Your task to perform on an android device: View the shopping cart on target. Search for "razer blade" on target, select the first entry, and add it to the cart. Image 0: 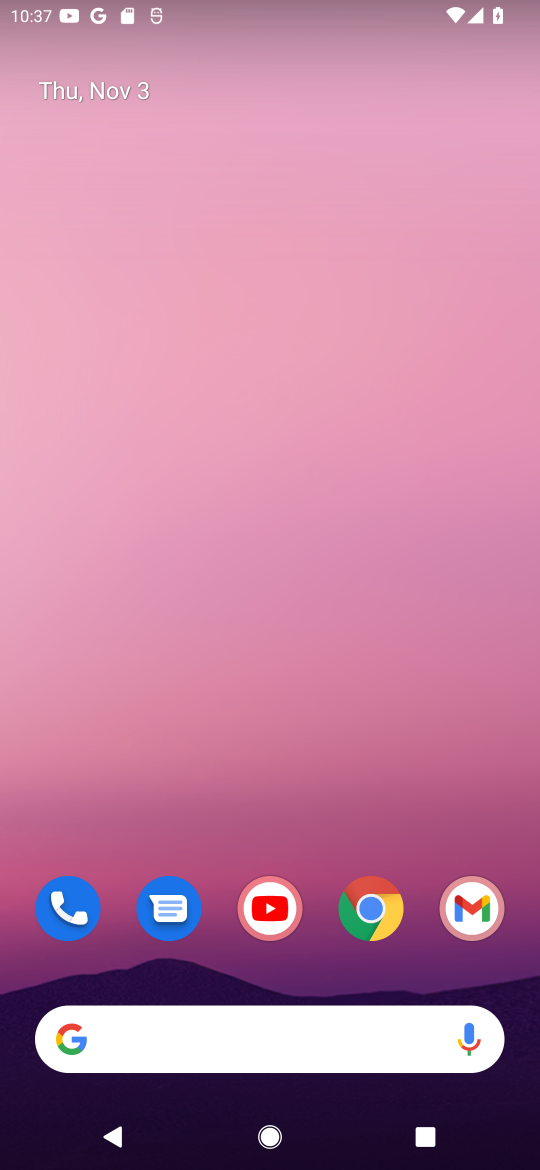
Step 0: click (353, 901)
Your task to perform on an android device: View the shopping cart on target. Search for "razer blade" on target, select the first entry, and add it to the cart. Image 1: 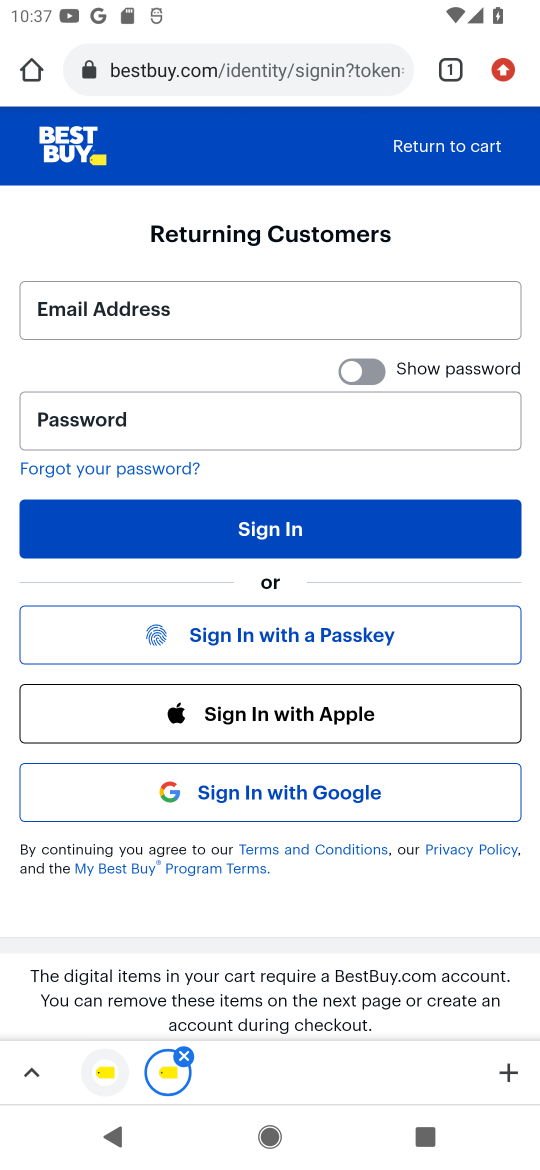
Step 1: click (213, 52)
Your task to perform on an android device: View the shopping cart on target. Search for "razer blade" on target, select the first entry, and add it to the cart. Image 2: 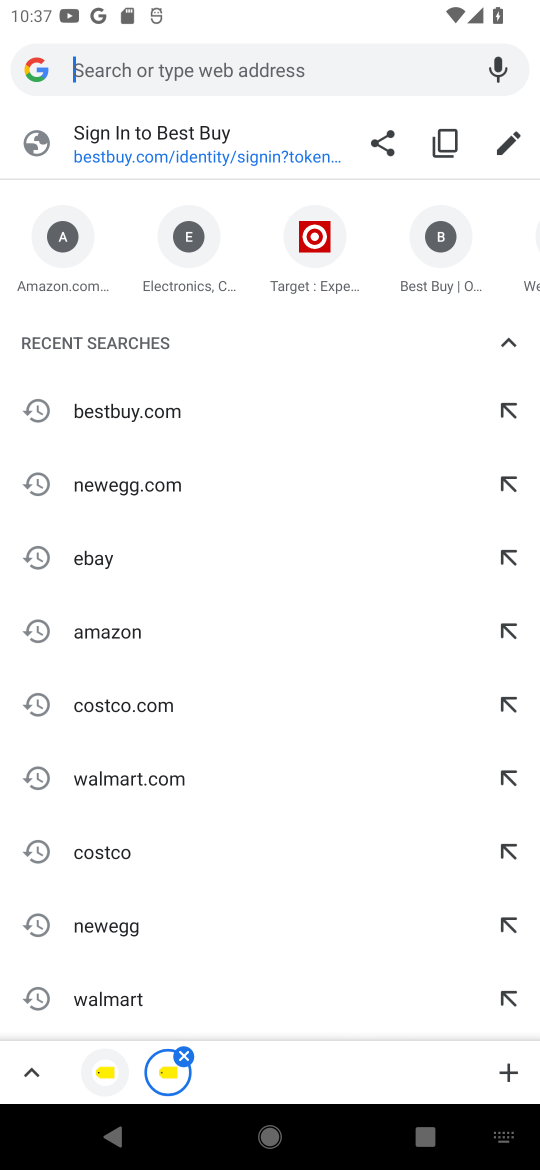
Step 2: click (305, 255)
Your task to perform on an android device: View the shopping cart on target. Search for "razer blade" on target, select the first entry, and add it to the cart. Image 3: 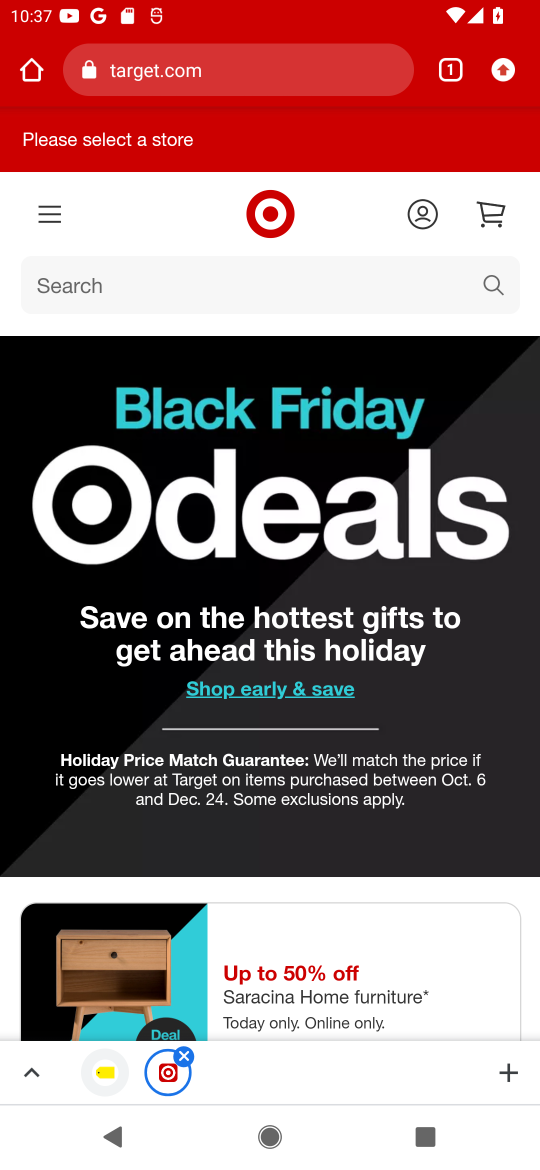
Step 3: click (484, 204)
Your task to perform on an android device: View the shopping cart on target. Search for "razer blade" on target, select the first entry, and add it to the cart. Image 4: 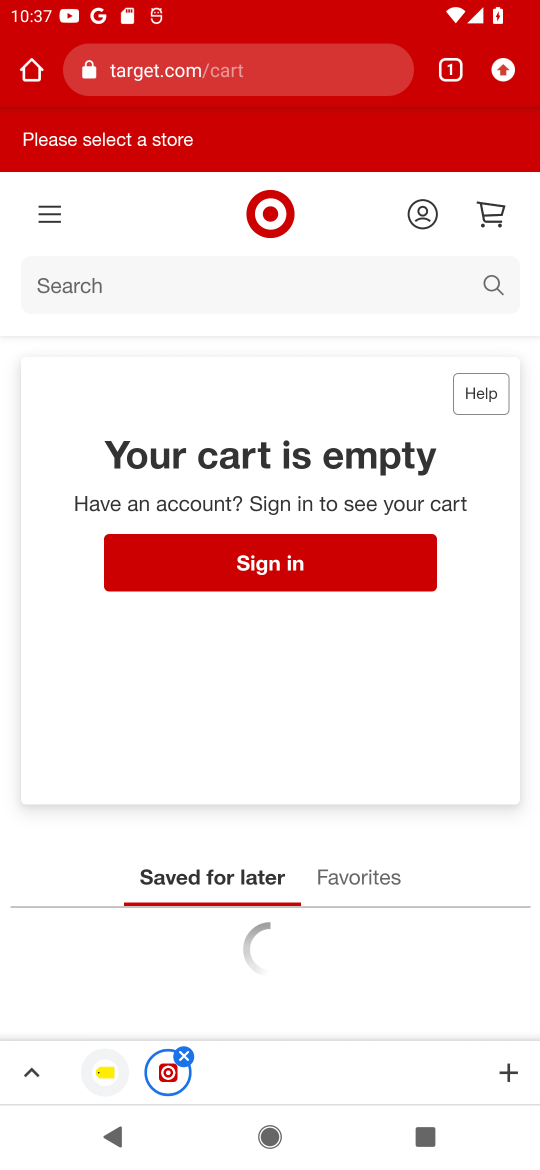
Step 4: click (481, 273)
Your task to perform on an android device: View the shopping cart on target. Search for "razer blade" on target, select the first entry, and add it to the cart. Image 5: 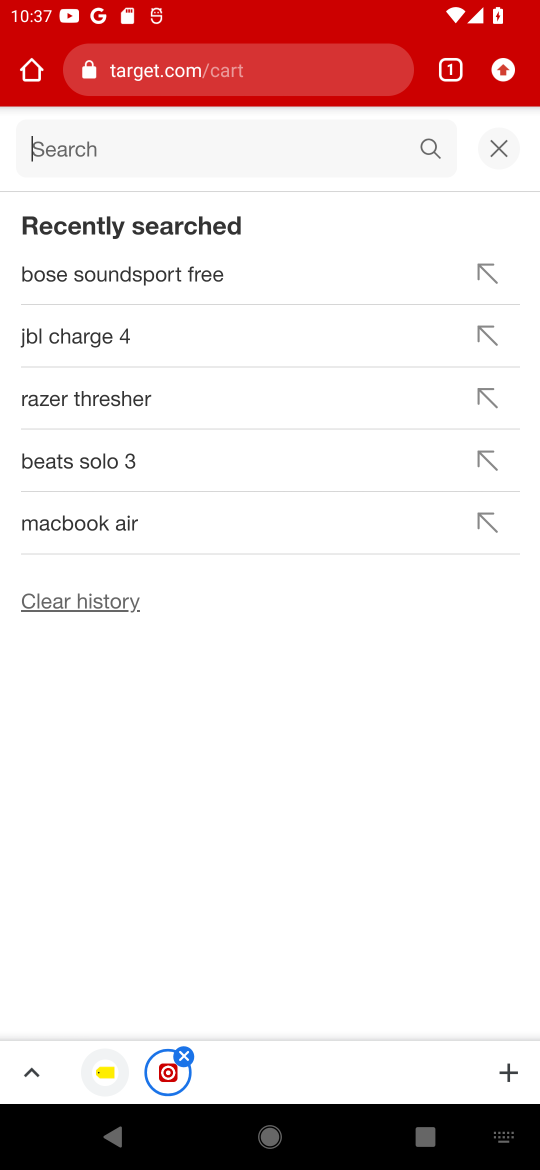
Step 5: type "razer blade"
Your task to perform on an android device: View the shopping cart on target. Search for "razer blade" on target, select the first entry, and add it to the cart. Image 6: 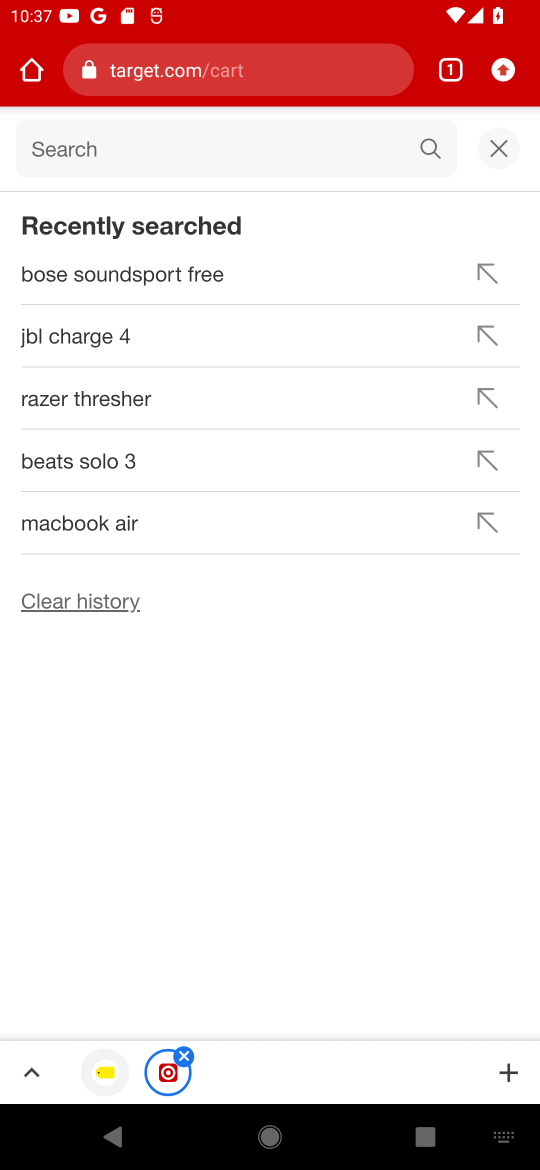
Step 6: press enter
Your task to perform on an android device: View the shopping cart on target. Search for "razer blade" on target, select the first entry, and add it to the cart. Image 7: 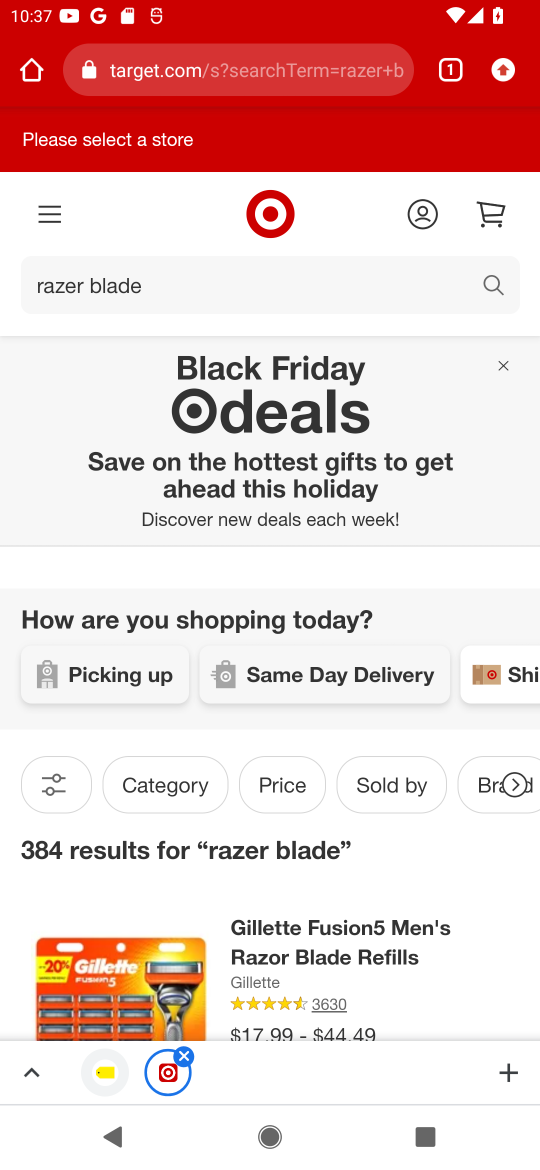
Step 7: drag from (379, 912) to (381, 629)
Your task to perform on an android device: View the shopping cart on target. Search for "razer blade" on target, select the first entry, and add it to the cart. Image 8: 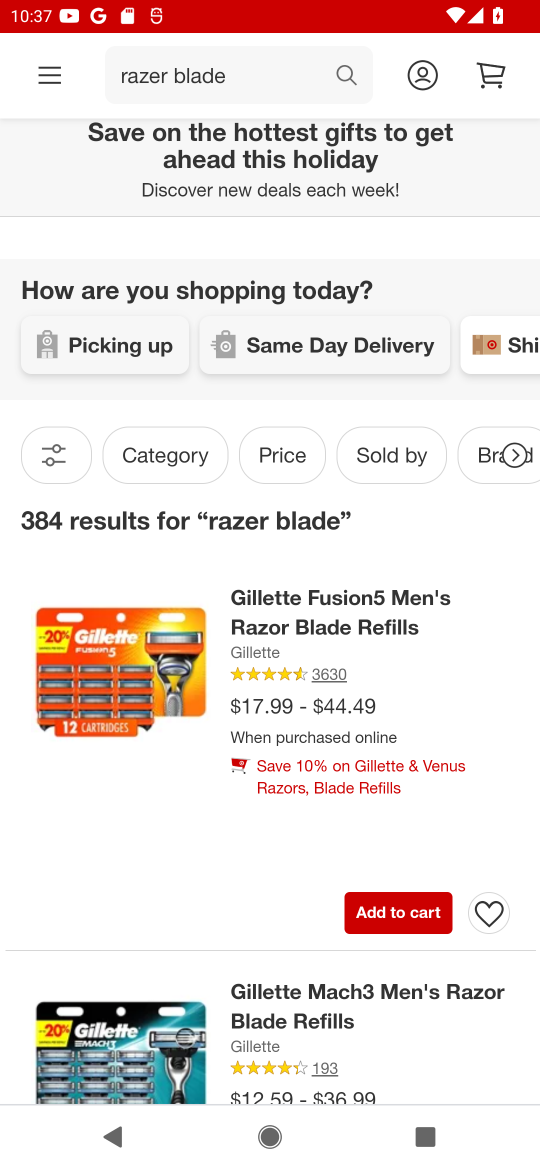
Step 8: click (120, 655)
Your task to perform on an android device: View the shopping cart on target. Search for "razer blade" on target, select the first entry, and add it to the cart. Image 9: 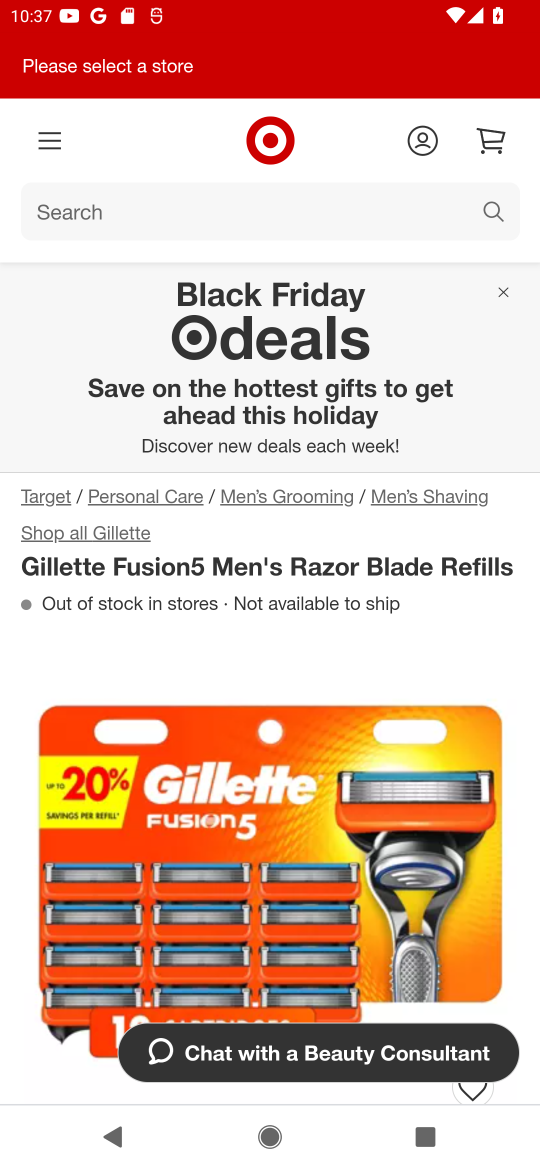
Step 9: drag from (371, 707) to (376, 287)
Your task to perform on an android device: View the shopping cart on target. Search for "razer blade" on target, select the first entry, and add it to the cart. Image 10: 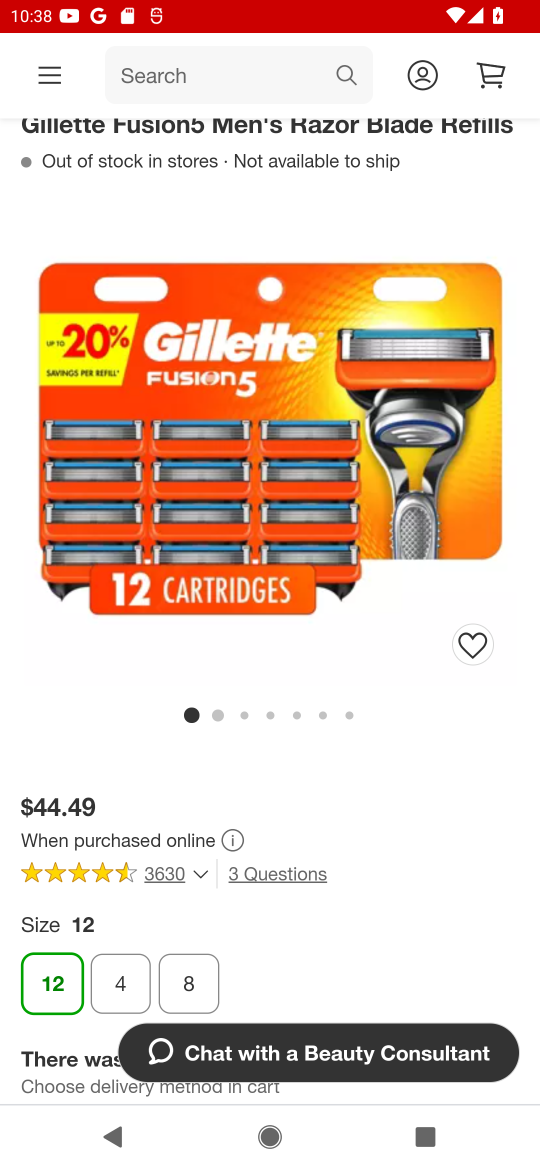
Step 10: drag from (349, 745) to (340, 338)
Your task to perform on an android device: View the shopping cart on target. Search for "razer blade" on target, select the first entry, and add it to the cart. Image 11: 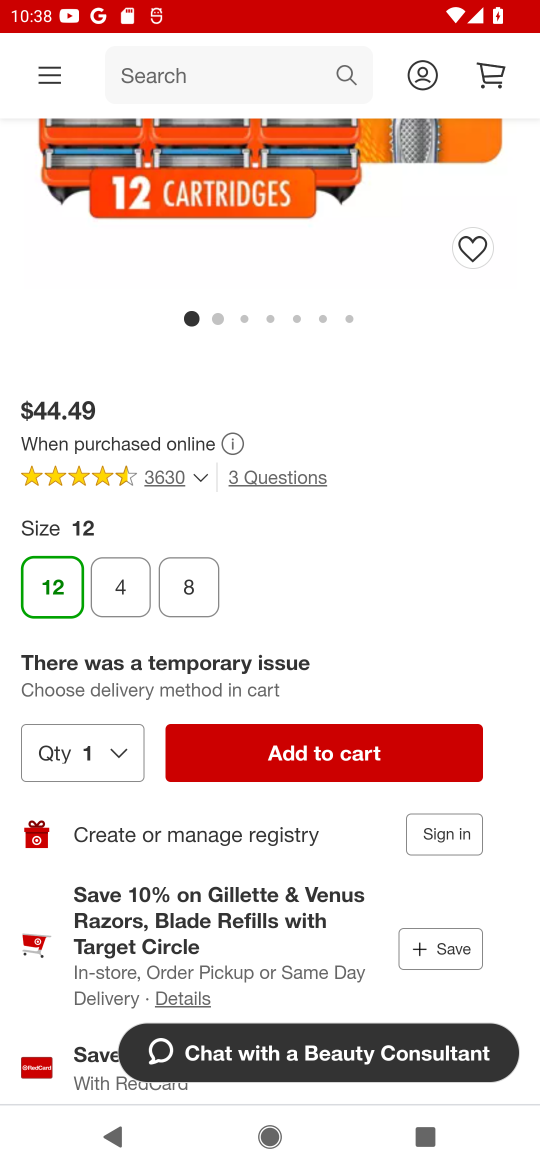
Step 11: click (374, 755)
Your task to perform on an android device: View the shopping cart on target. Search for "razer blade" on target, select the first entry, and add it to the cart. Image 12: 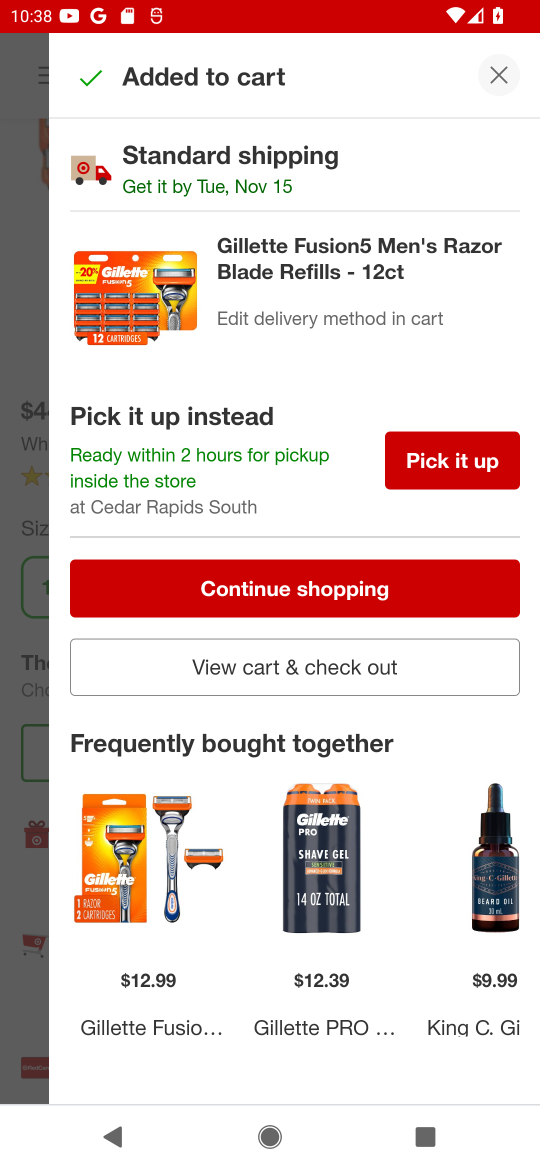
Step 12: click (498, 72)
Your task to perform on an android device: View the shopping cart on target. Search for "razer blade" on target, select the first entry, and add it to the cart. Image 13: 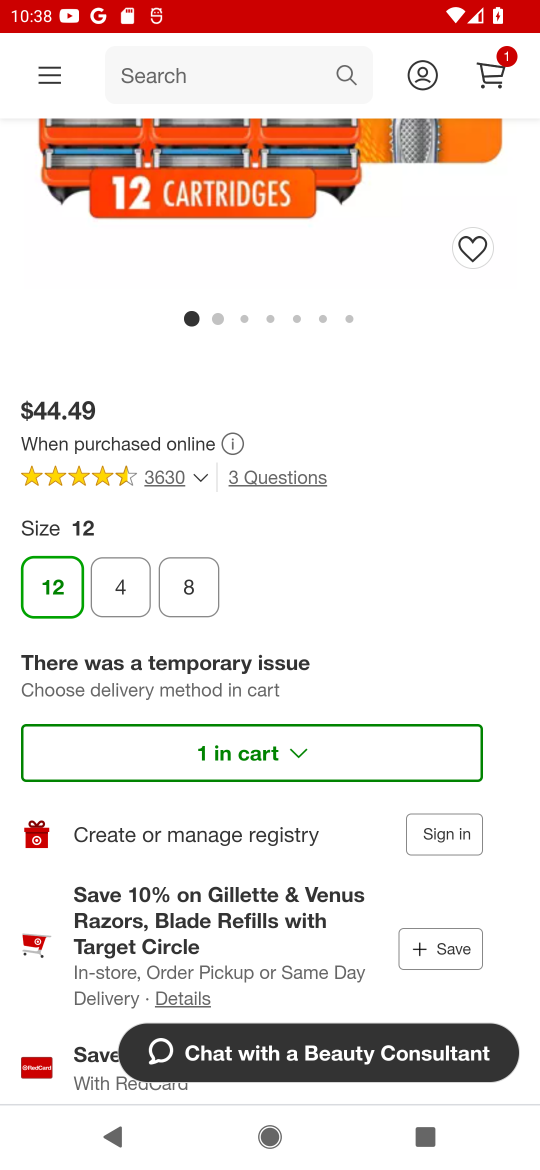
Step 13: task complete